Your task to perform on an android device: Open the map Image 0: 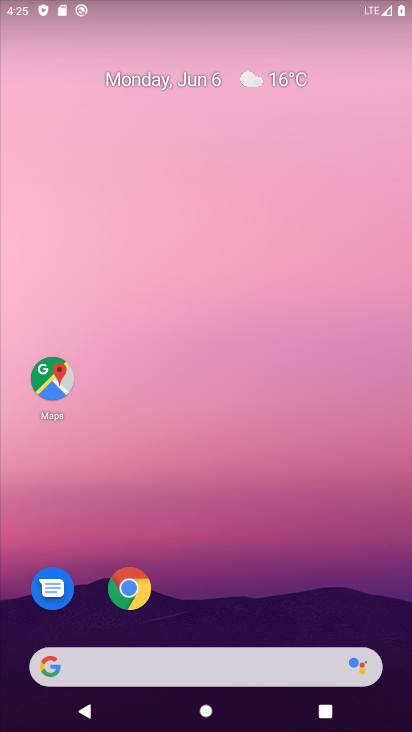
Step 0: drag from (208, 541) to (129, 3)
Your task to perform on an android device: Open the map Image 1: 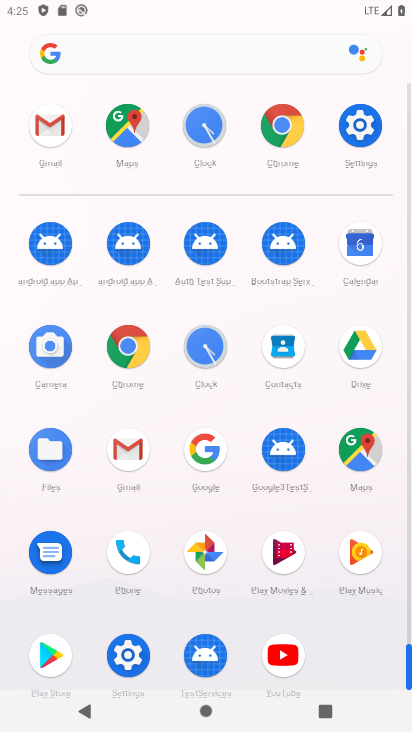
Step 1: click (353, 438)
Your task to perform on an android device: Open the map Image 2: 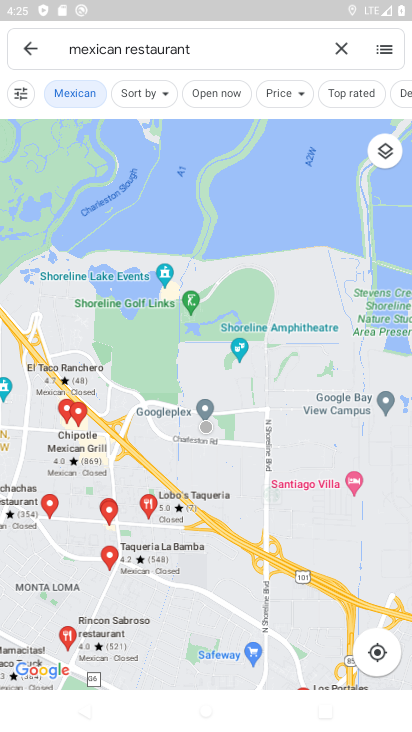
Step 2: task complete